Your task to perform on an android device: clear history in the chrome app Image 0: 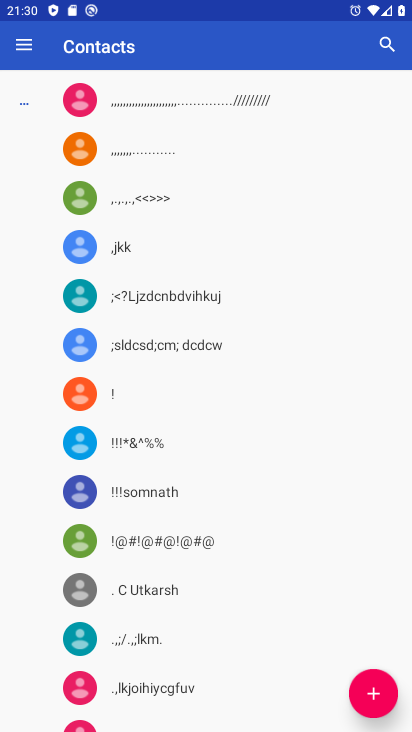
Step 0: press home button
Your task to perform on an android device: clear history in the chrome app Image 1: 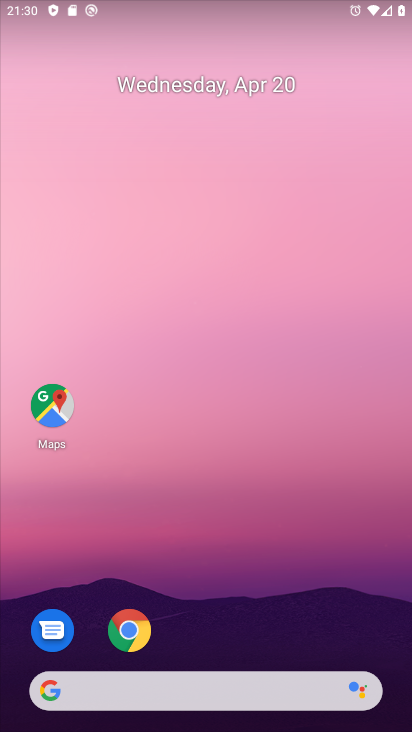
Step 1: click (132, 630)
Your task to perform on an android device: clear history in the chrome app Image 2: 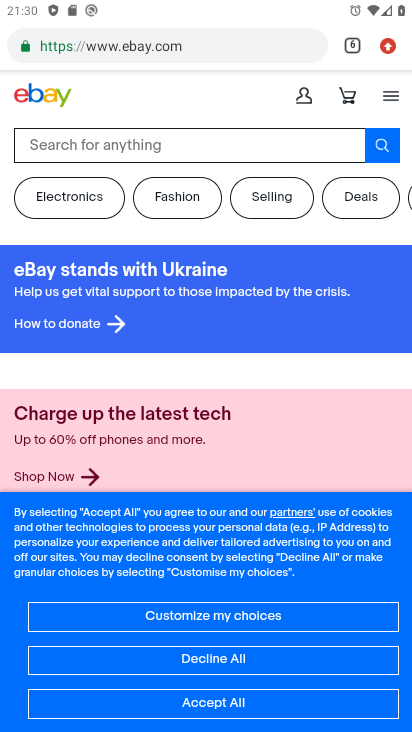
Step 2: click (392, 41)
Your task to perform on an android device: clear history in the chrome app Image 3: 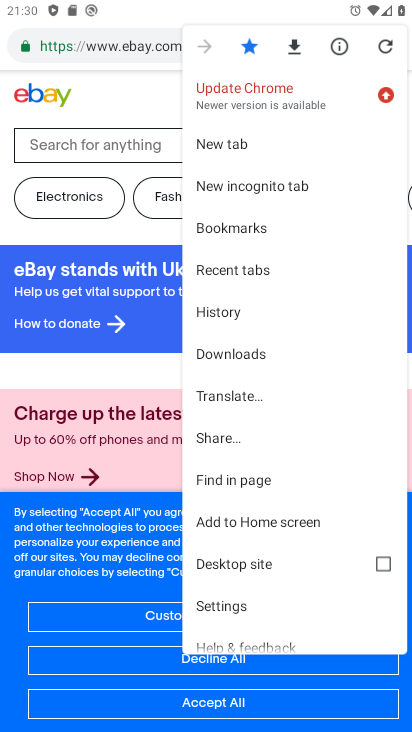
Step 3: click (227, 316)
Your task to perform on an android device: clear history in the chrome app Image 4: 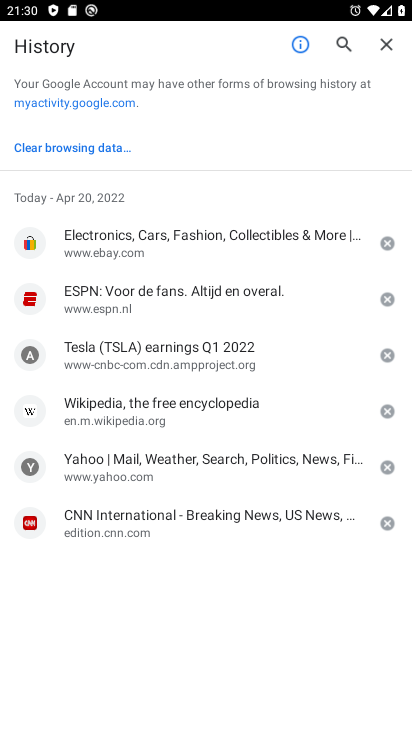
Step 4: click (86, 145)
Your task to perform on an android device: clear history in the chrome app Image 5: 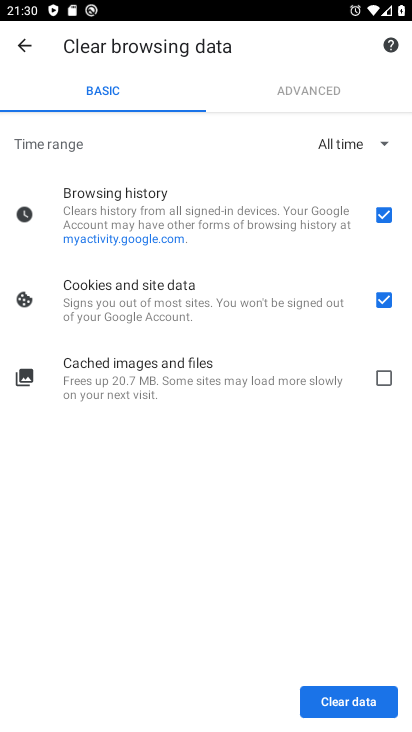
Step 5: click (390, 372)
Your task to perform on an android device: clear history in the chrome app Image 6: 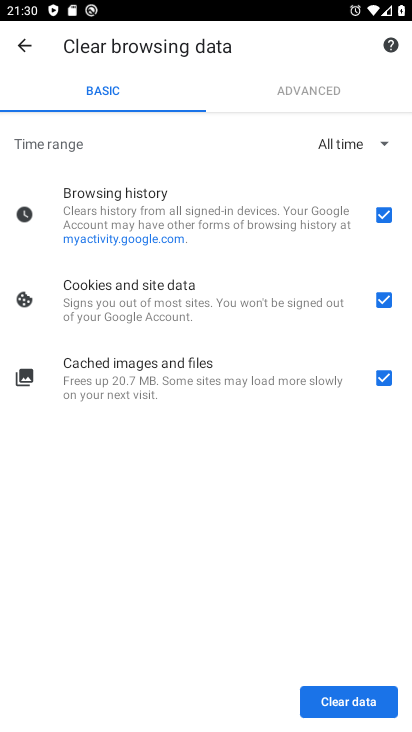
Step 6: click (341, 693)
Your task to perform on an android device: clear history in the chrome app Image 7: 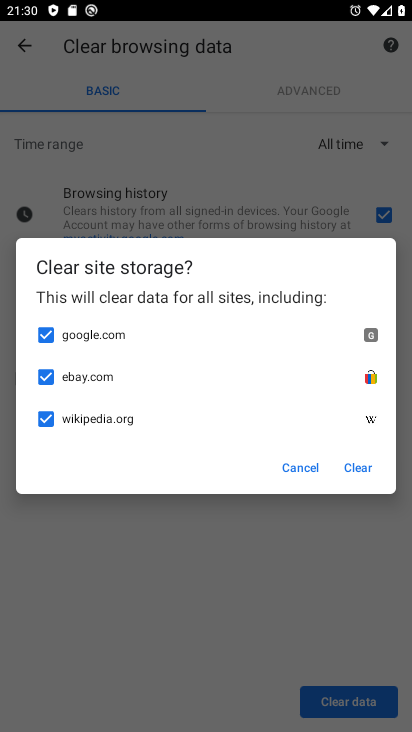
Step 7: click (362, 462)
Your task to perform on an android device: clear history in the chrome app Image 8: 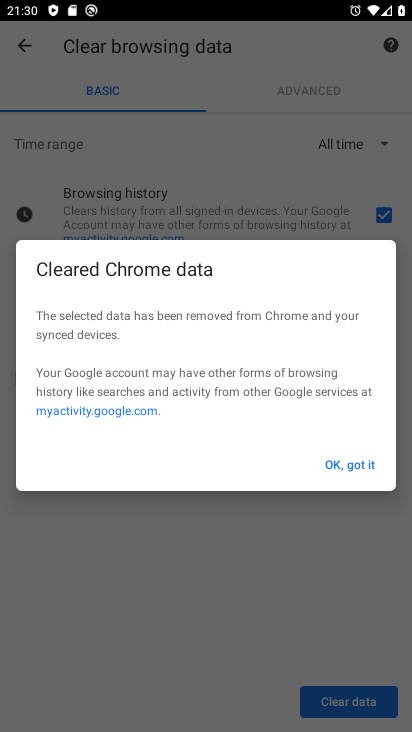
Step 8: click (359, 460)
Your task to perform on an android device: clear history in the chrome app Image 9: 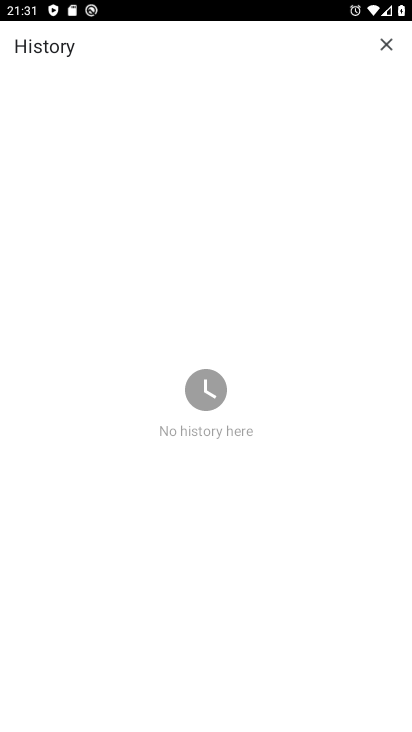
Step 9: task complete